Your task to perform on an android device: See recent photos Image 0: 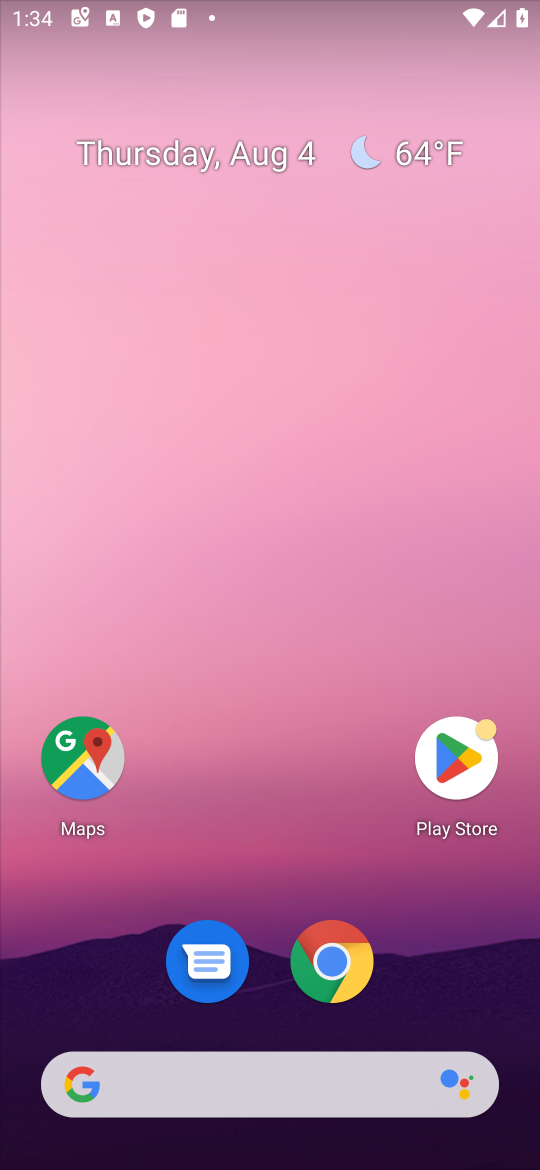
Step 0: drag from (300, 786) to (368, 1)
Your task to perform on an android device: See recent photos Image 1: 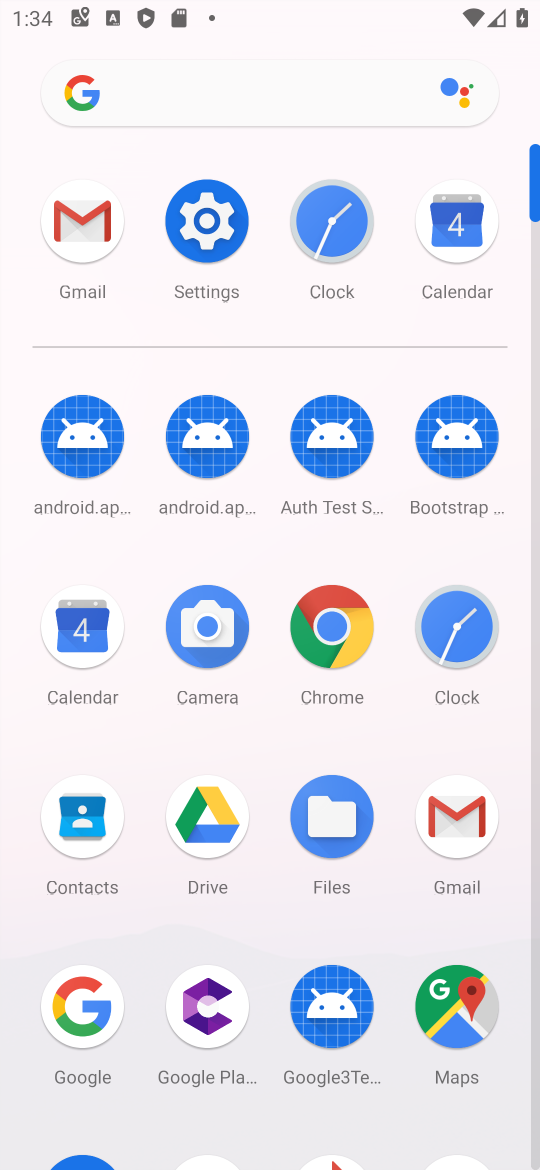
Step 1: drag from (296, 741) to (312, 244)
Your task to perform on an android device: See recent photos Image 2: 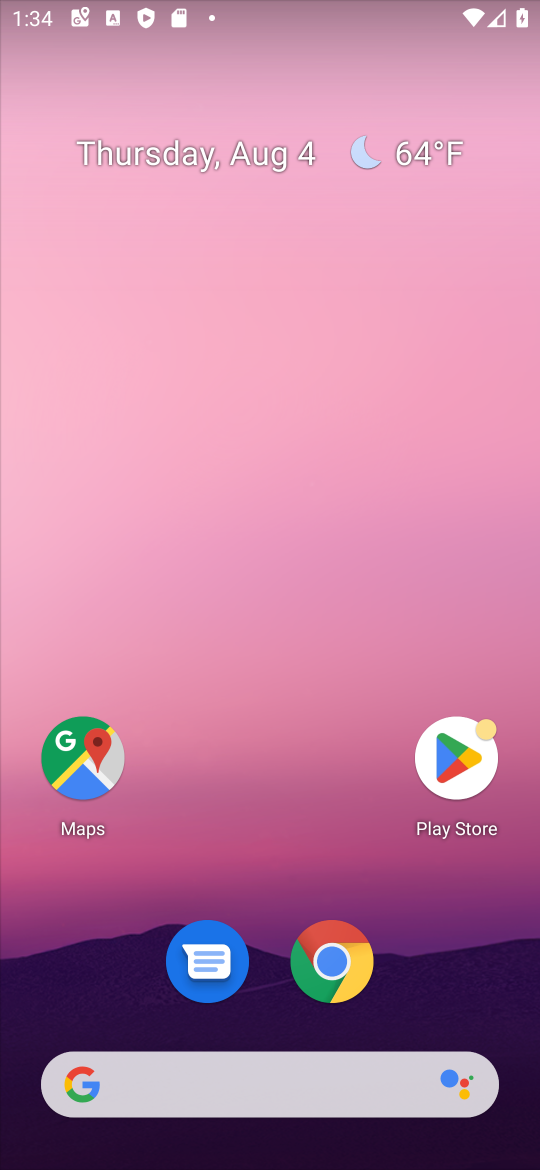
Step 2: drag from (297, 789) to (376, 5)
Your task to perform on an android device: See recent photos Image 3: 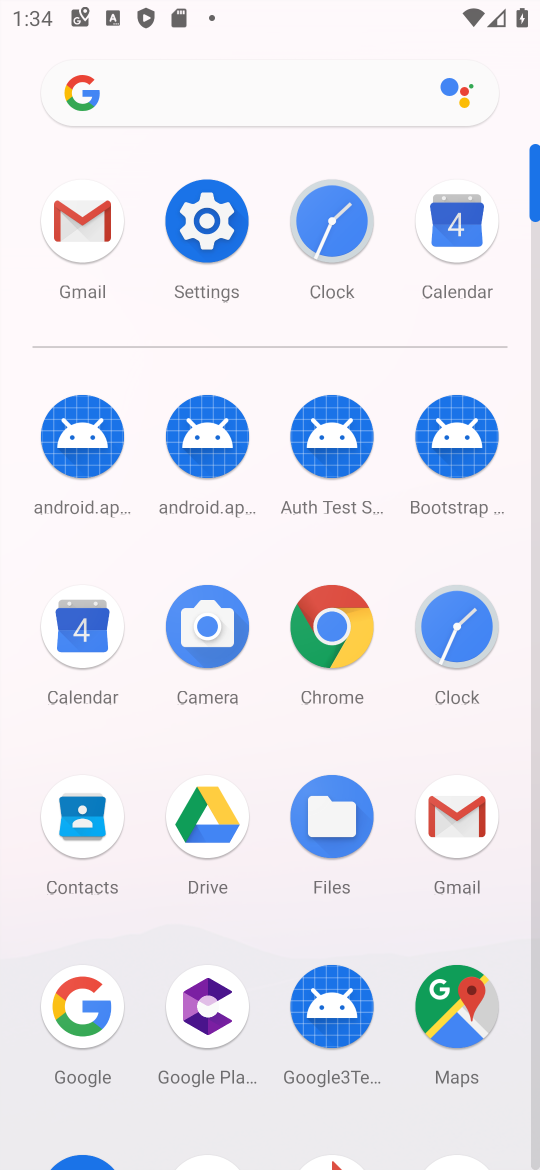
Step 3: drag from (392, 715) to (402, 351)
Your task to perform on an android device: See recent photos Image 4: 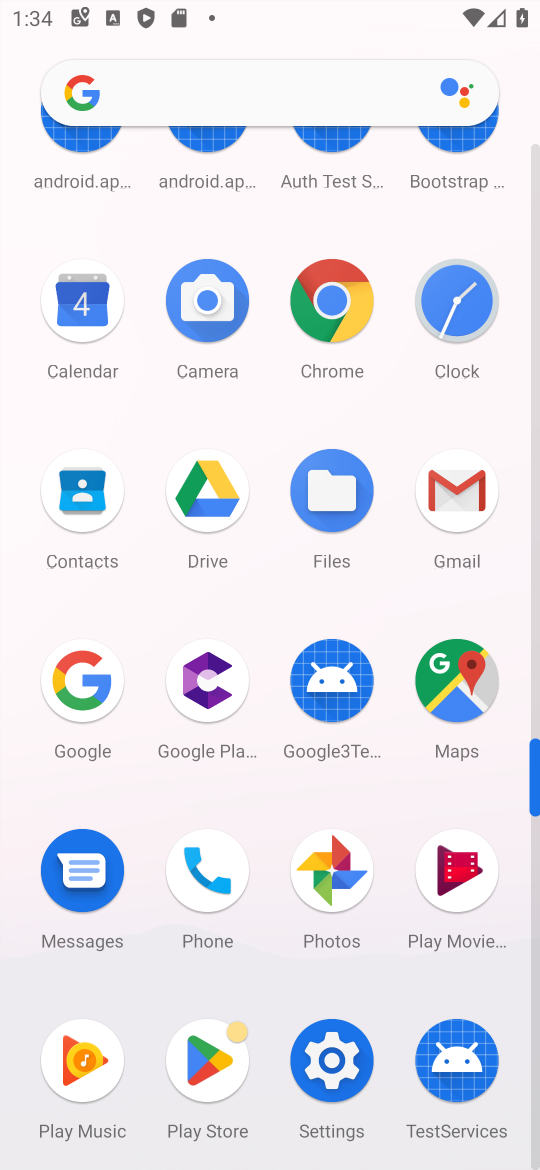
Step 4: click (348, 863)
Your task to perform on an android device: See recent photos Image 5: 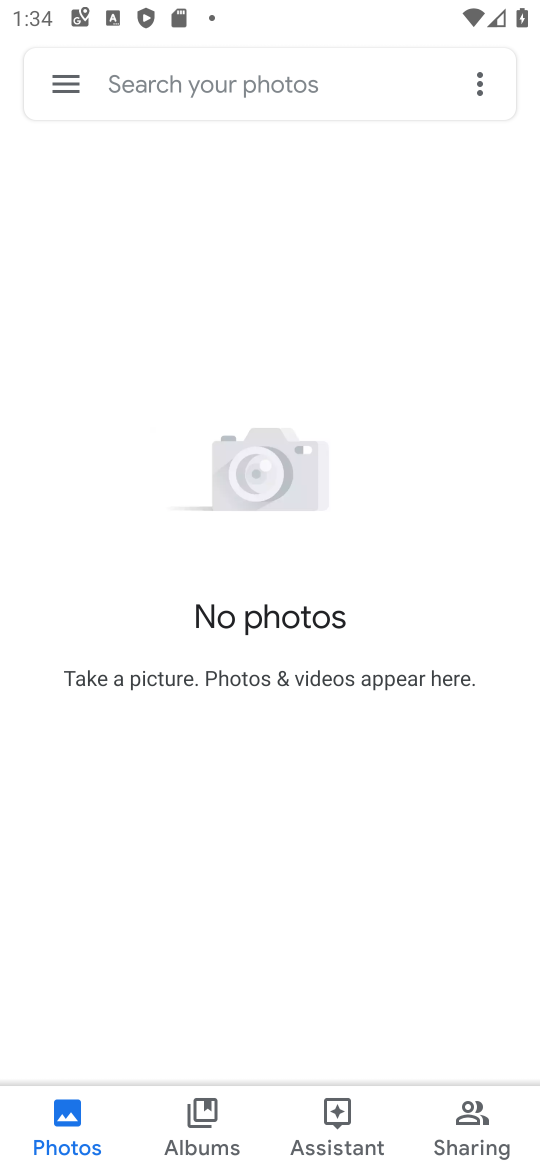
Step 5: task complete